Your task to perform on an android device: turn on wifi Image 0: 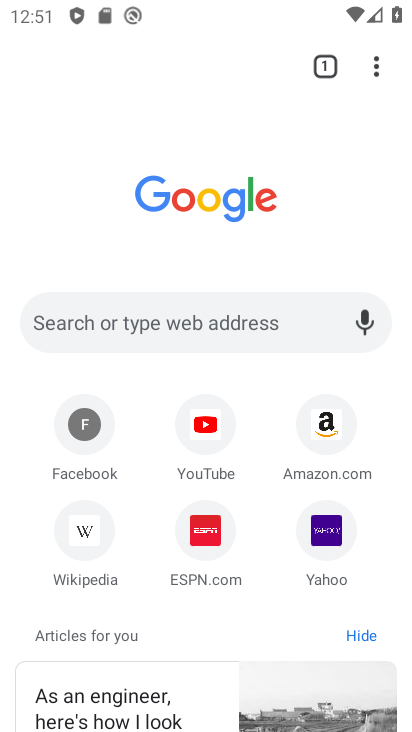
Step 0: press home button
Your task to perform on an android device: turn on wifi Image 1: 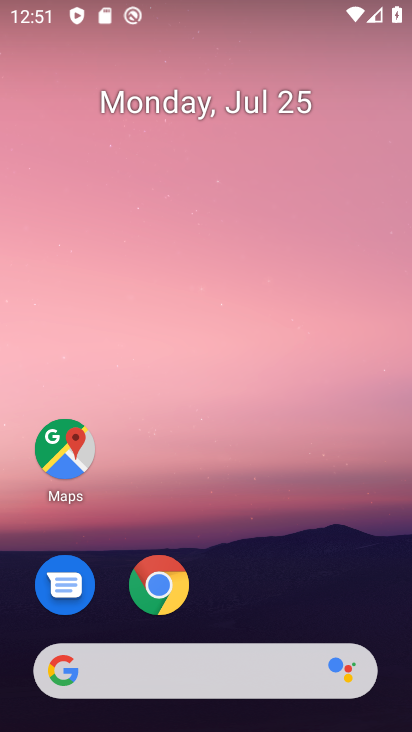
Step 1: drag from (199, 323) to (203, 106)
Your task to perform on an android device: turn on wifi Image 2: 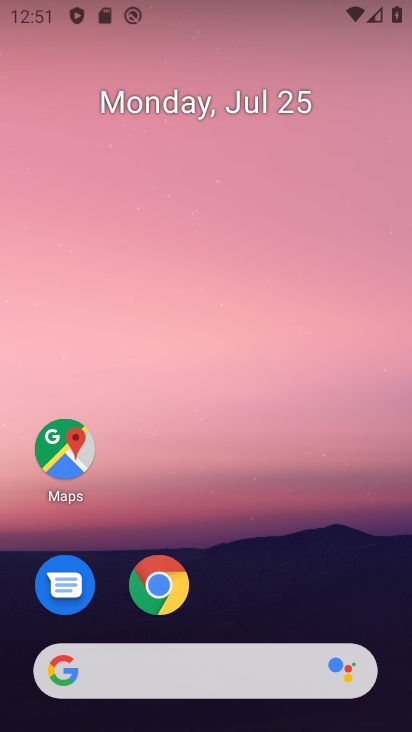
Step 2: drag from (183, 482) to (157, 173)
Your task to perform on an android device: turn on wifi Image 3: 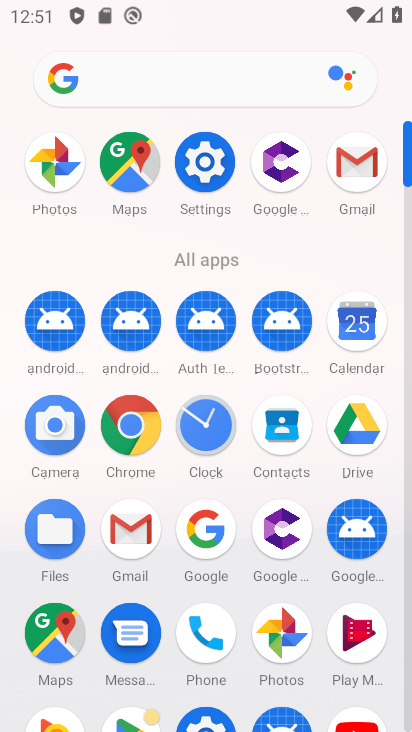
Step 3: click (196, 166)
Your task to perform on an android device: turn on wifi Image 4: 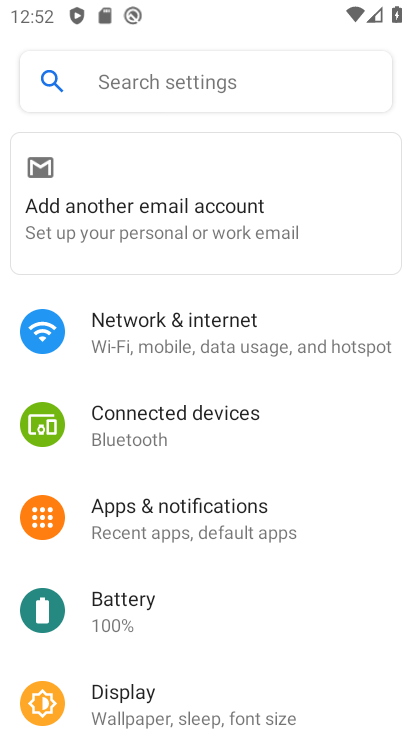
Step 4: click (181, 322)
Your task to perform on an android device: turn on wifi Image 5: 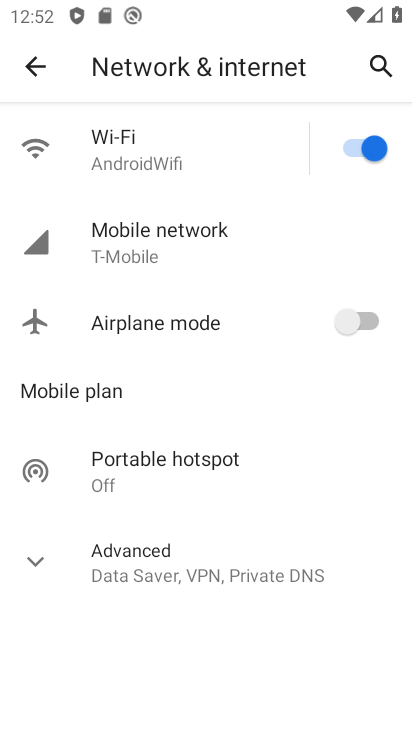
Step 5: task complete